Your task to perform on an android device: open the mobile data screen to see how much data has been used Image 0: 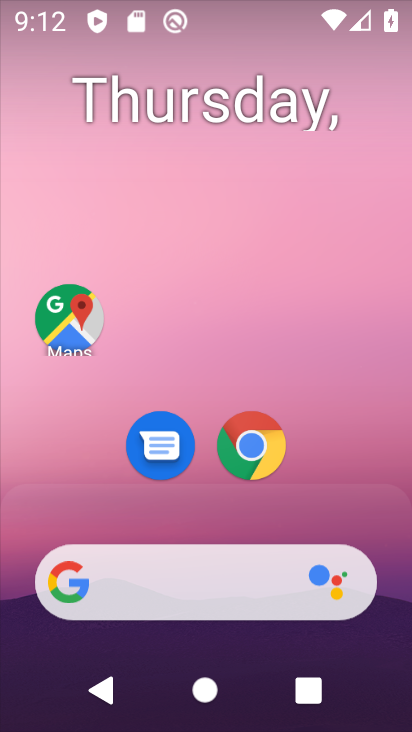
Step 0: drag from (130, 458) to (209, 69)
Your task to perform on an android device: open the mobile data screen to see how much data has been used Image 1: 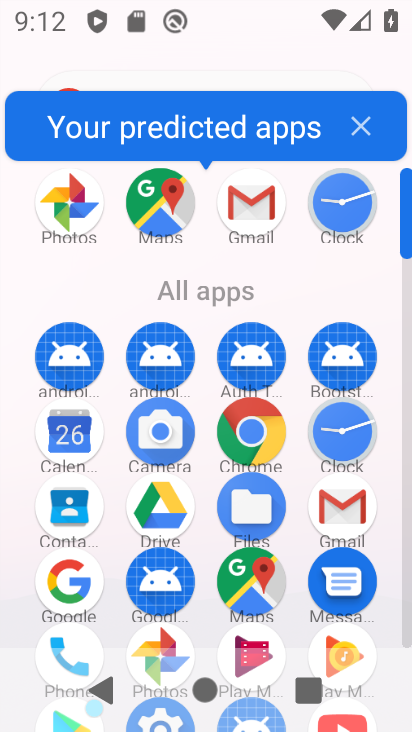
Step 1: drag from (122, 676) to (226, 270)
Your task to perform on an android device: open the mobile data screen to see how much data has been used Image 2: 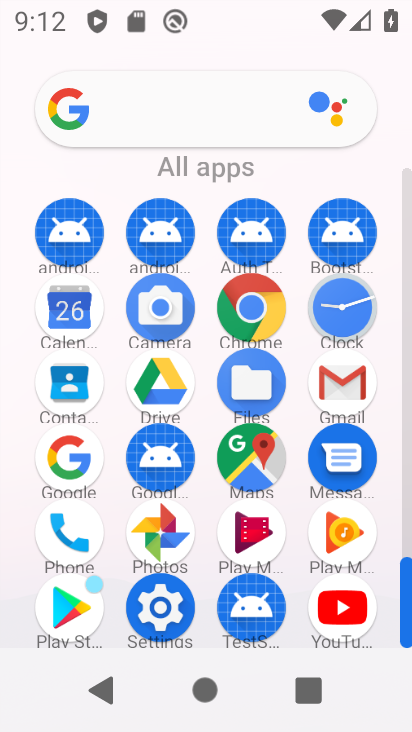
Step 2: click (164, 596)
Your task to perform on an android device: open the mobile data screen to see how much data has been used Image 3: 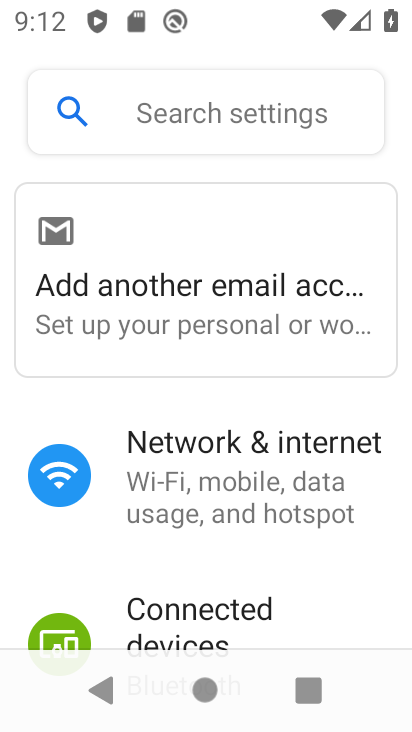
Step 3: click (215, 505)
Your task to perform on an android device: open the mobile data screen to see how much data has been used Image 4: 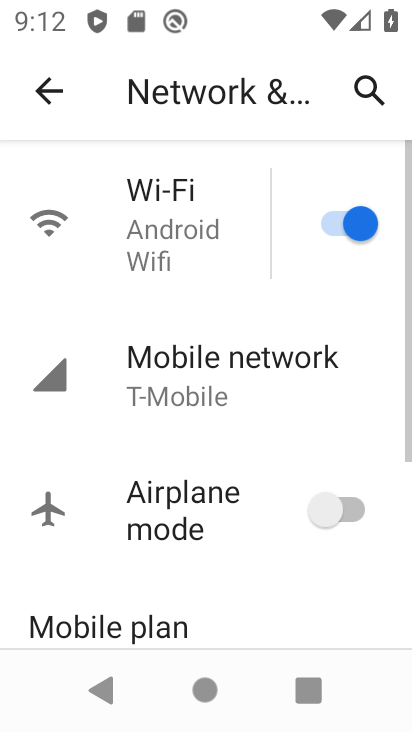
Step 4: click (279, 398)
Your task to perform on an android device: open the mobile data screen to see how much data has been used Image 5: 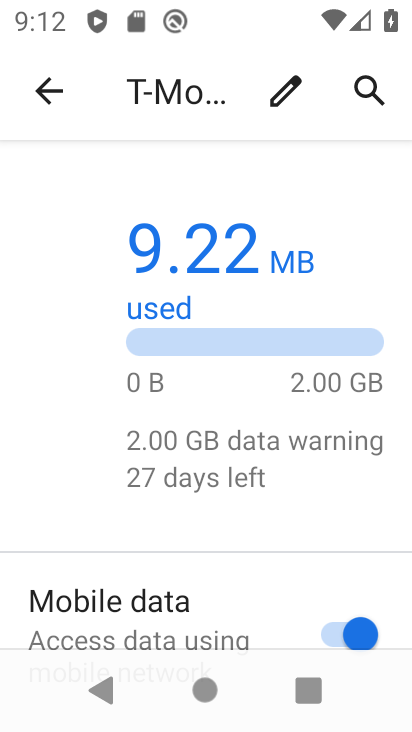
Step 5: task complete